Your task to perform on an android device: Set the phone to "Do not disturb". Image 0: 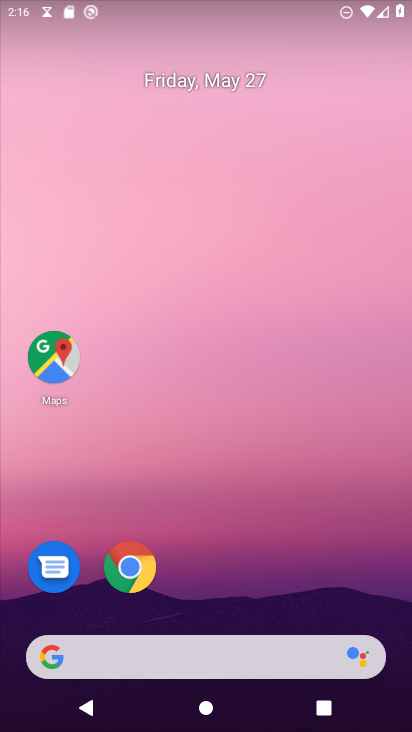
Step 0: drag from (243, 606) to (245, 115)
Your task to perform on an android device: Set the phone to "Do not disturb". Image 1: 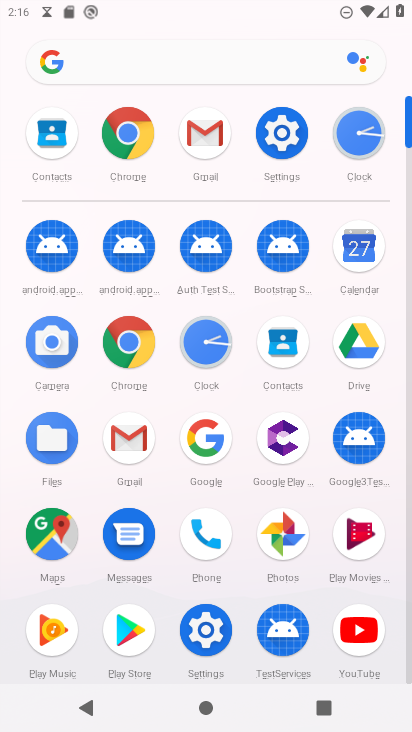
Step 1: task complete